Your task to perform on an android device: When is my next meeting? Image 0: 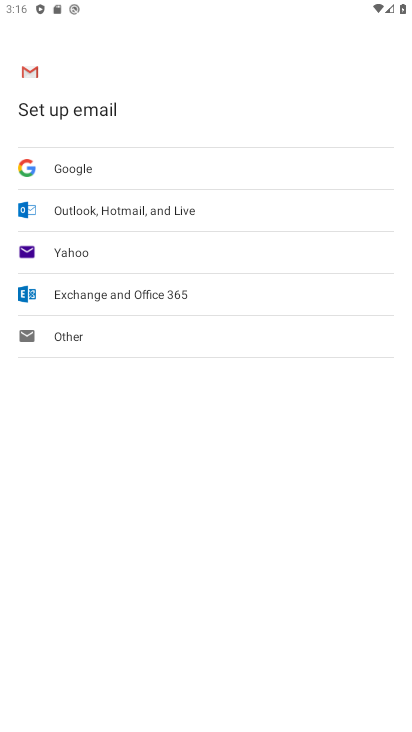
Step 0: press home button
Your task to perform on an android device: When is my next meeting? Image 1: 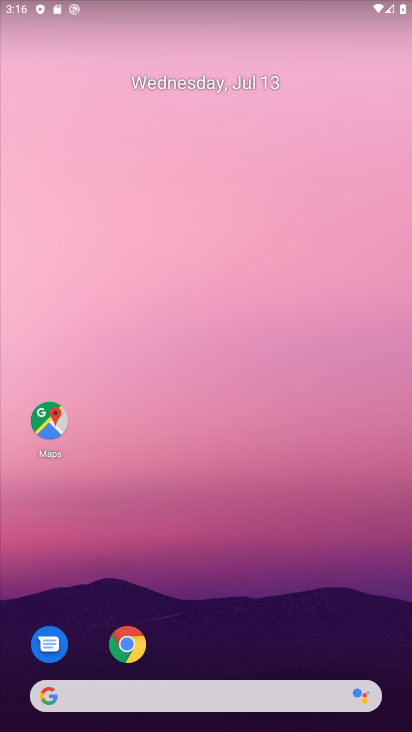
Step 1: drag from (215, 630) to (316, 3)
Your task to perform on an android device: When is my next meeting? Image 2: 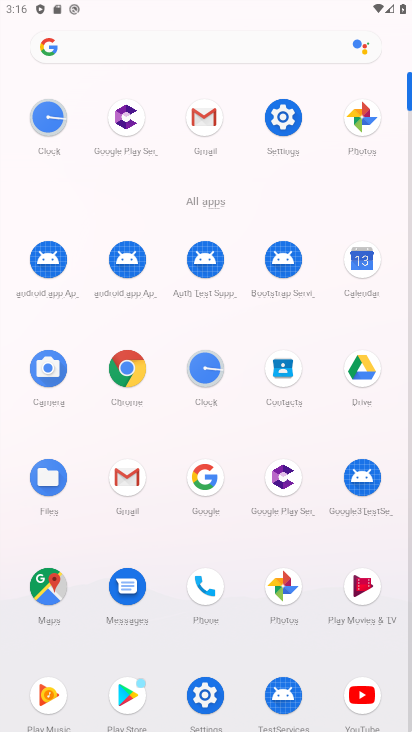
Step 2: click (360, 288)
Your task to perform on an android device: When is my next meeting? Image 3: 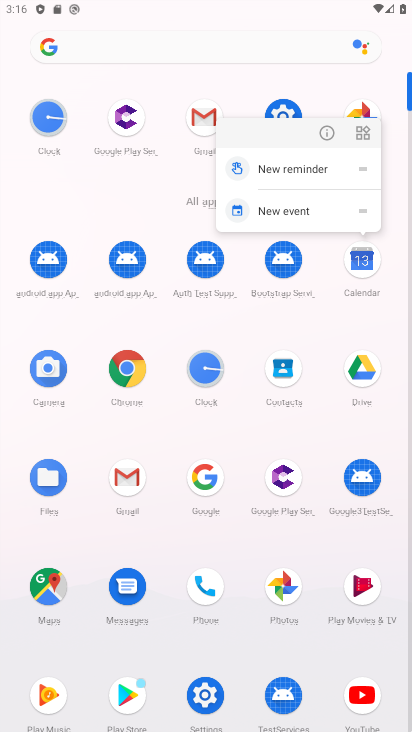
Step 3: click (360, 288)
Your task to perform on an android device: When is my next meeting? Image 4: 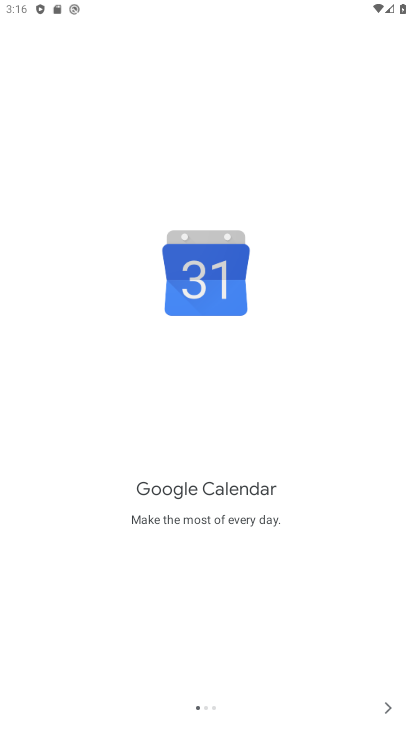
Step 4: click (381, 708)
Your task to perform on an android device: When is my next meeting? Image 5: 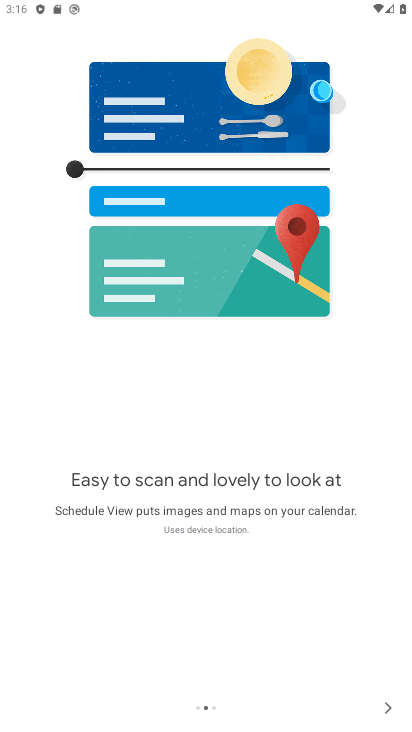
Step 5: click (381, 708)
Your task to perform on an android device: When is my next meeting? Image 6: 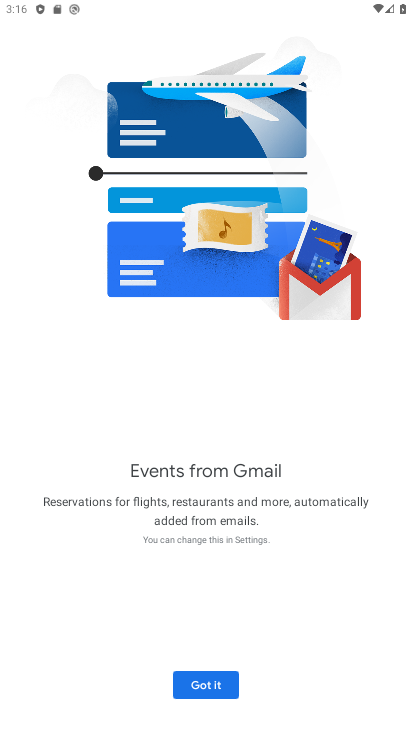
Step 6: click (381, 708)
Your task to perform on an android device: When is my next meeting? Image 7: 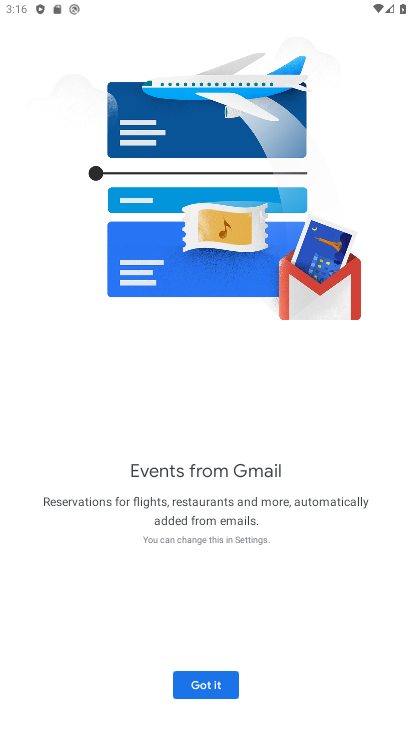
Step 7: click (224, 679)
Your task to perform on an android device: When is my next meeting? Image 8: 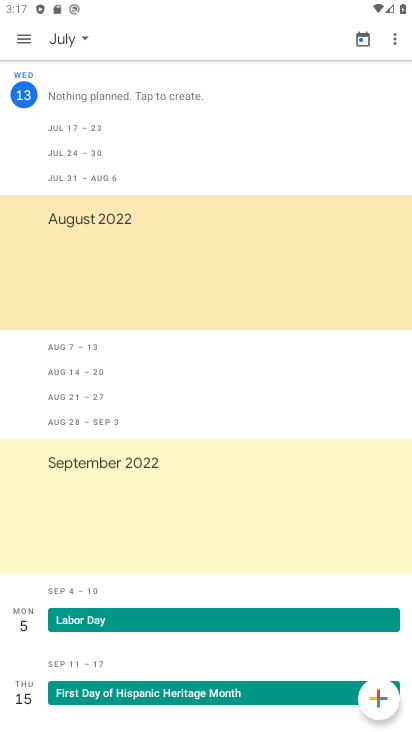
Step 8: task complete